Your task to perform on an android device: Show me popular games on the Play Store Image 0: 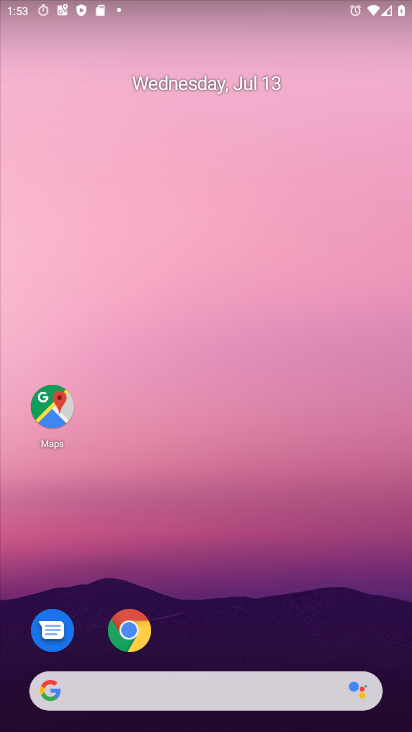
Step 0: drag from (358, 632) to (350, 153)
Your task to perform on an android device: Show me popular games on the Play Store Image 1: 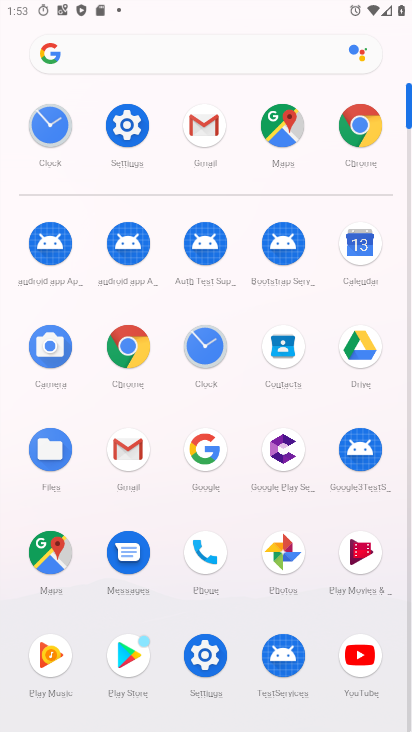
Step 1: click (141, 651)
Your task to perform on an android device: Show me popular games on the Play Store Image 2: 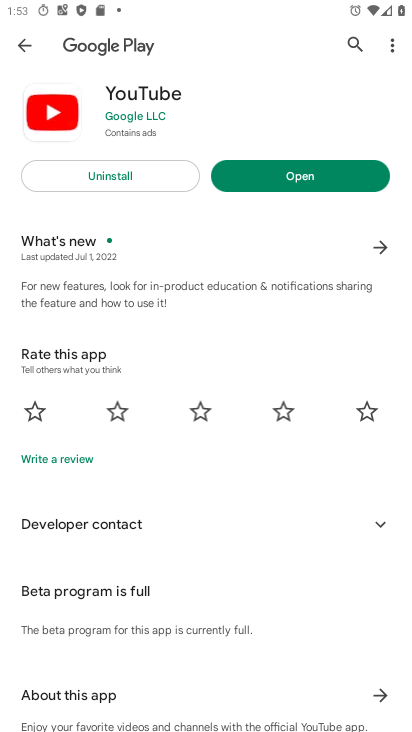
Step 2: press back button
Your task to perform on an android device: Show me popular games on the Play Store Image 3: 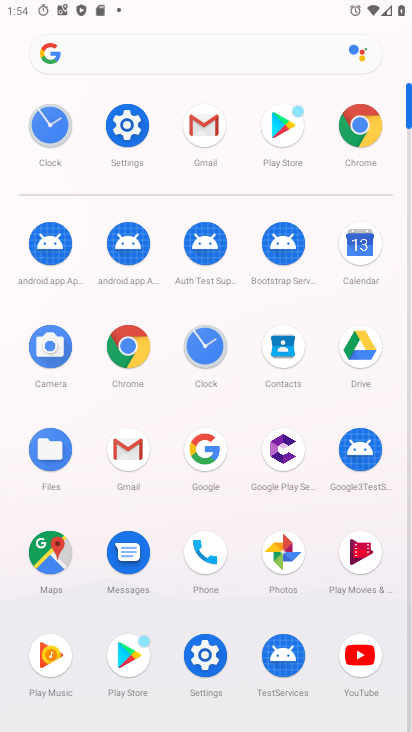
Step 3: click (141, 661)
Your task to perform on an android device: Show me popular games on the Play Store Image 4: 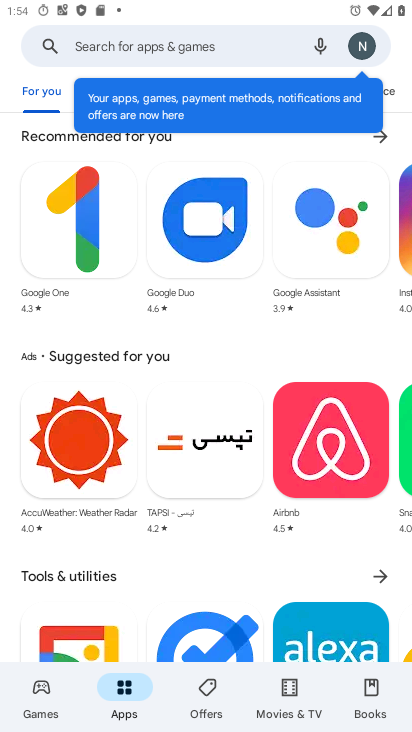
Step 4: click (43, 689)
Your task to perform on an android device: Show me popular games on the Play Store Image 5: 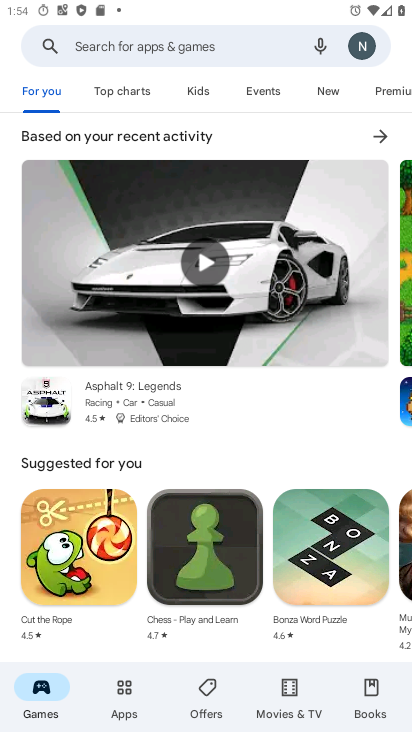
Step 5: task complete